Your task to perform on an android device: Find coffee shops on Maps Image 0: 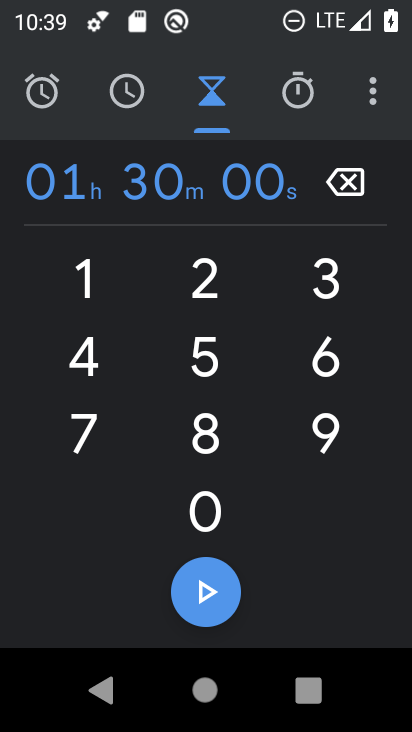
Step 0: press home button
Your task to perform on an android device: Find coffee shops on Maps Image 1: 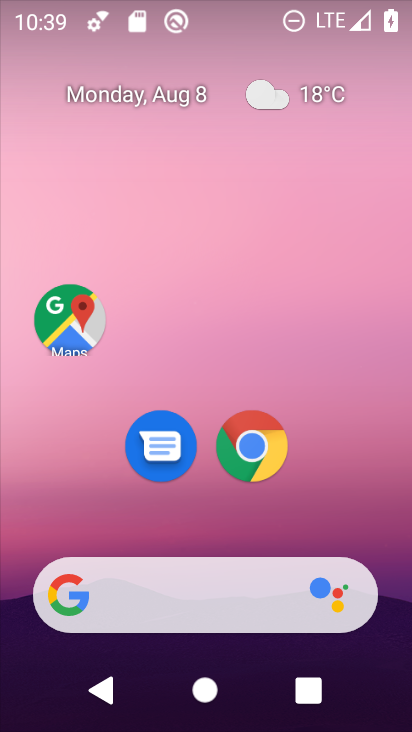
Step 1: click (69, 322)
Your task to perform on an android device: Find coffee shops on Maps Image 2: 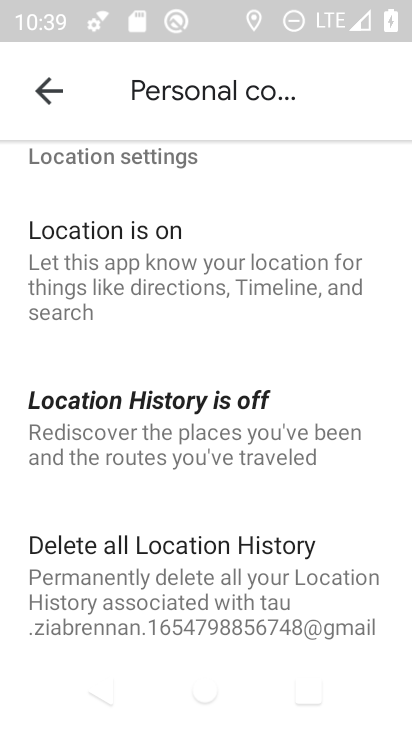
Step 2: press back button
Your task to perform on an android device: Find coffee shops on Maps Image 3: 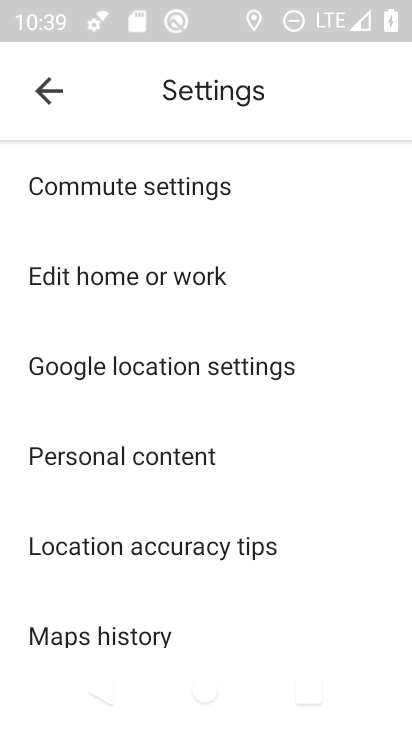
Step 3: press back button
Your task to perform on an android device: Find coffee shops on Maps Image 4: 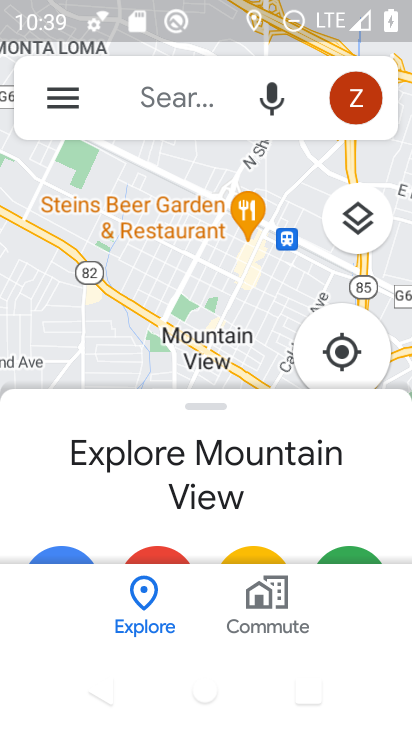
Step 4: click (143, 96)
Your task to perform on an android device: Find coffee shops on Maps Image 5: 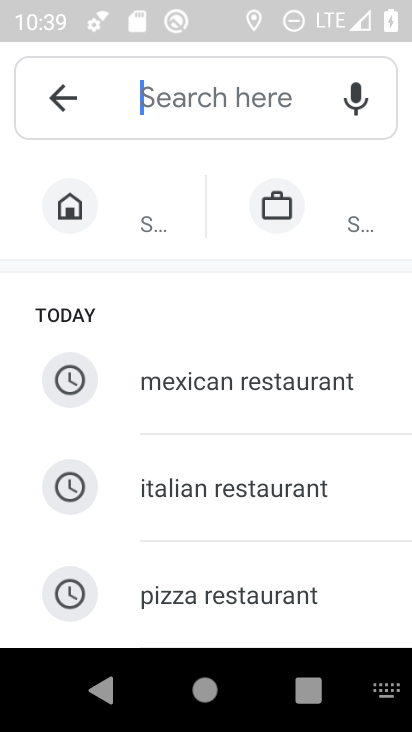
Step 5: type "coffee shops"
Your task to perform on an android device: Find coffee shops on Maps Image 6: 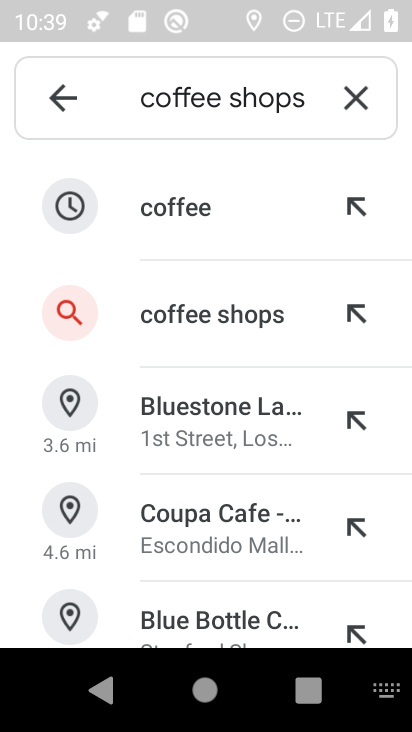
Step 6: click (184, 307)
Your task to perform on an android device: Find coffee shops on Maps Image 7: 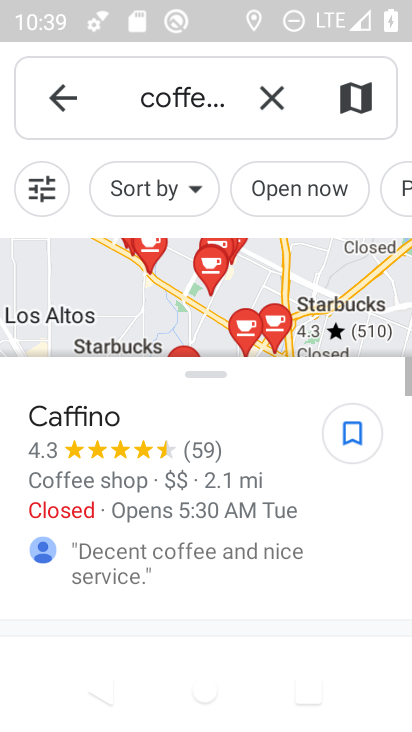
Step 7: task complete